Your task to perform on an android device: show emergency info Image 0: 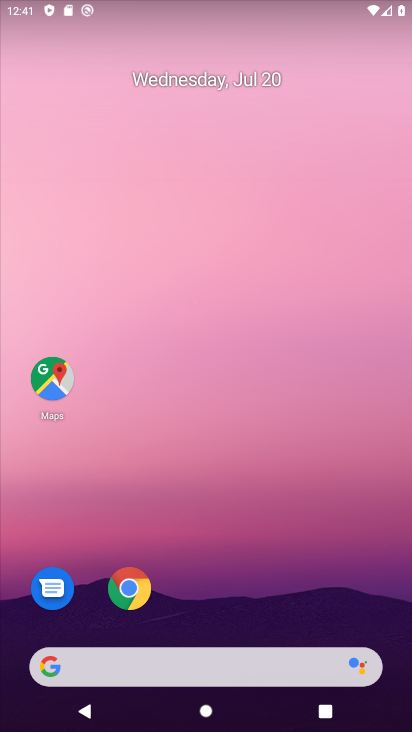
Step 0: drag from (32, 695) to (273, 93)
Your task to perform on an android device: show emergency info Image 1: 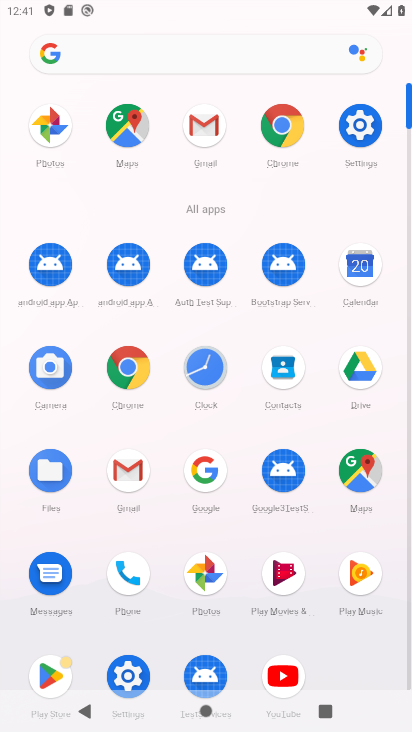
Step 1: click (365, 141)
Your task to perform on an android device: show emergency info Image 2: 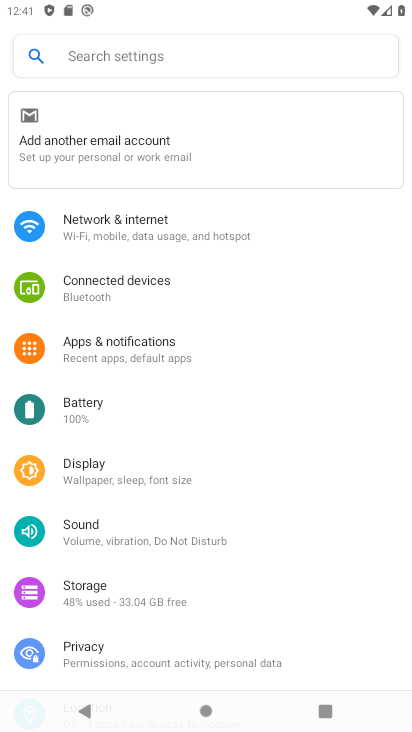
Step 2: drag from (26, 608) to (217, 130)
Your task to perform on an android device: show emergency info Image 3: 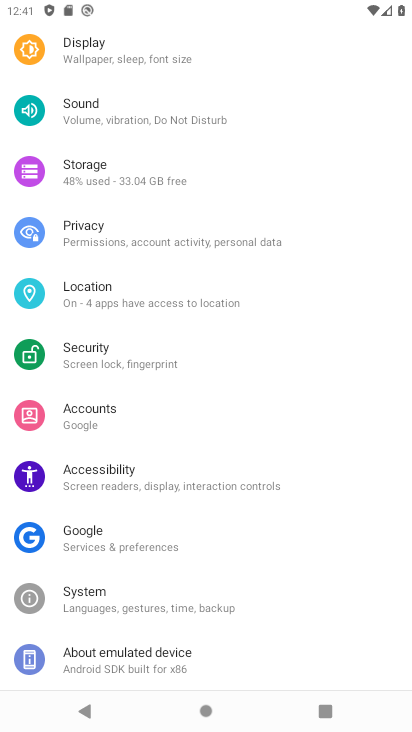
Step 3: drag from (22, 555) to (233, 119)
Your task to perform on an android device: show emergency info Image 4: 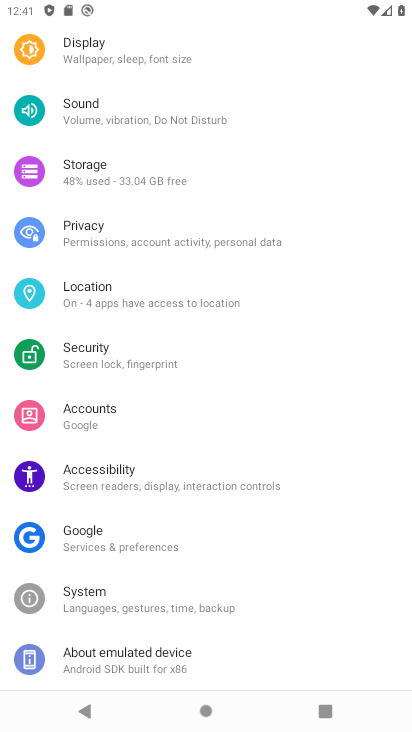
Step 4: click (125, 671)
Your task to perform on an android device: show emergency info Image 5: 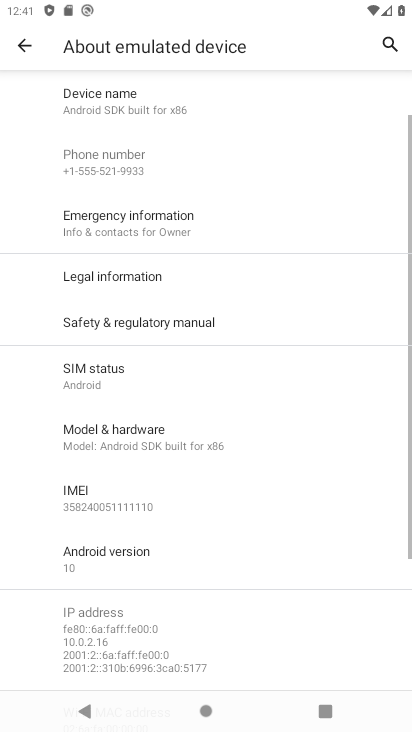
Step 5: click (166, 233)
Your task to perform on an android device: show emergency info Image 6: 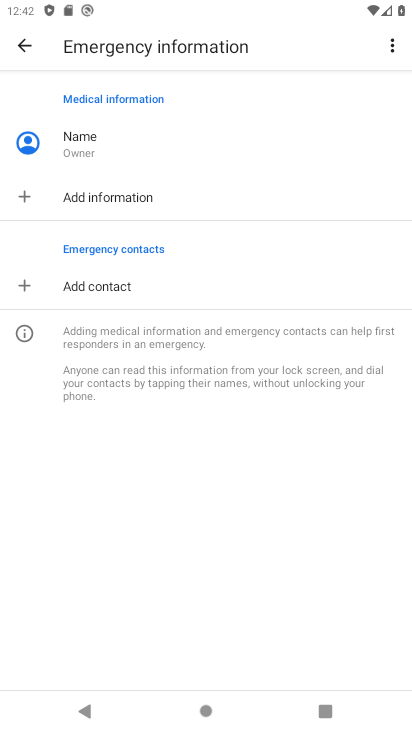
Step 6: task complete